Your task to perform on an android device: add a contact Image 0: 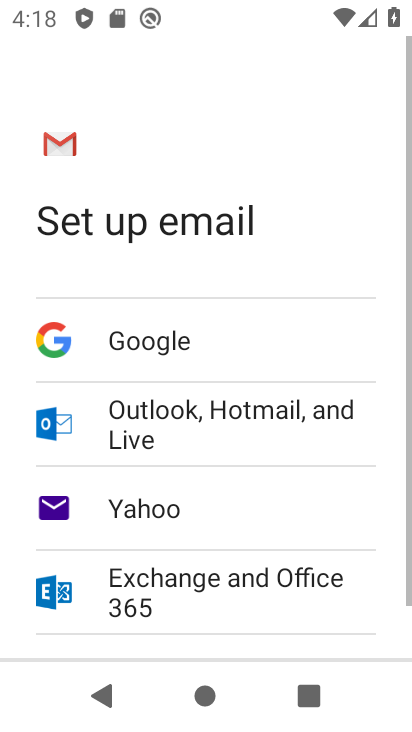
Step 0: press home button
Your task to perform on an android device: add a contact Image 1: 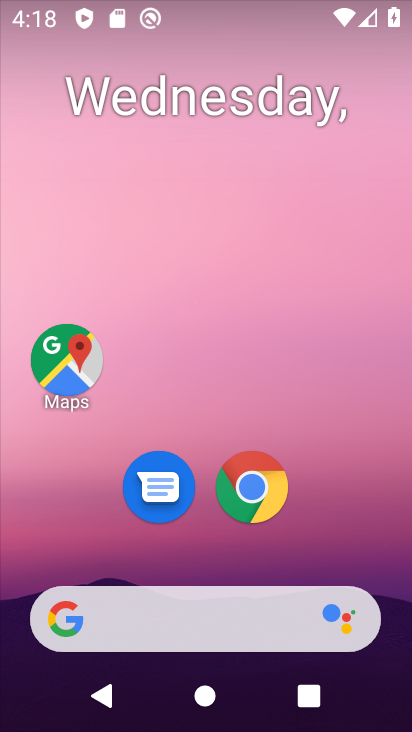
Step 1: drag from (198, 554) to (240, 69)
Your task to perform on an android device: add a contact Image 2: 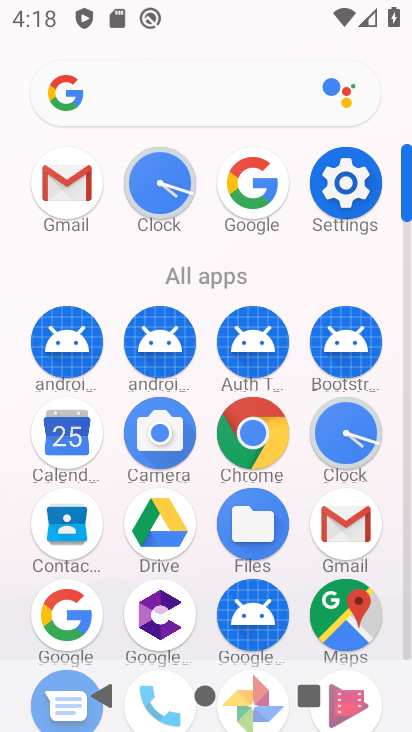
Step 2: click (61, 522)
Your task to perform on an android device: add a contact Image 3: 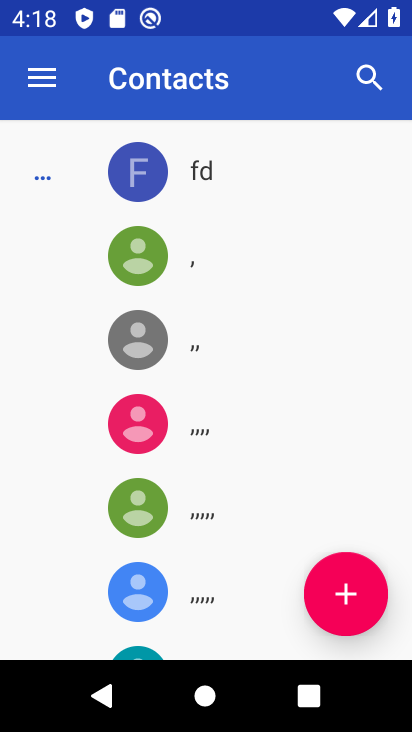
Step 3: drag from (244, 573) to (252, 198)
Your task to perform on an android device: add a contact Image 4: 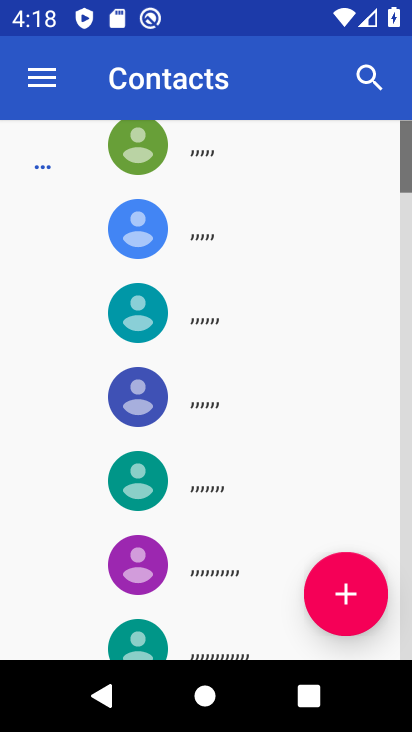
Step 4: click (359, 595)
Your task to perform on an android device: add a contact Image 5: 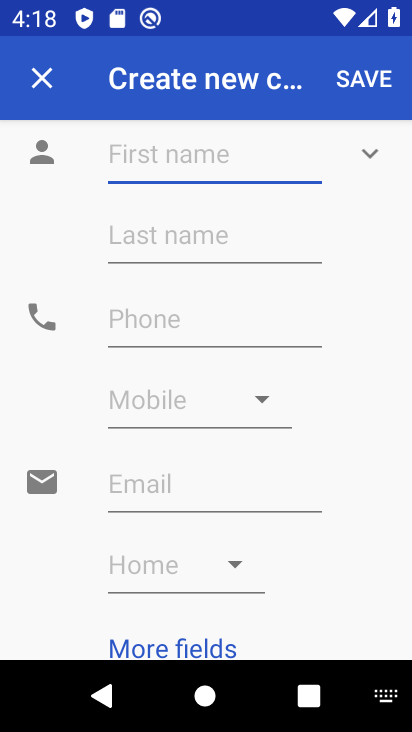
Step 5: type "uyftf"
Your task to perform on an android device: add a contact Image 6: 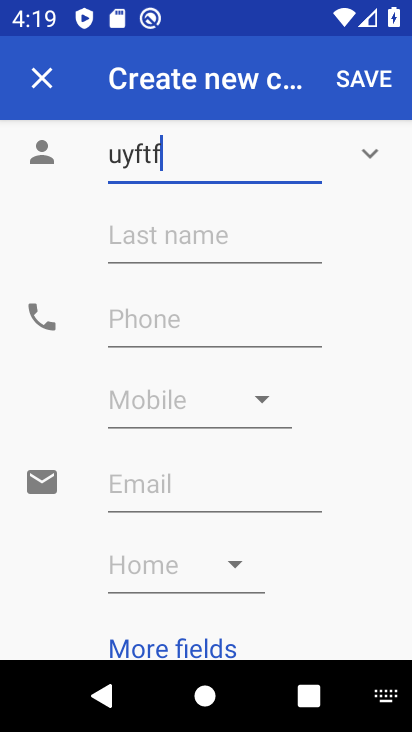
Step 6: click (363, 84)
Your task to perform on an android device: add a contact Image 7: 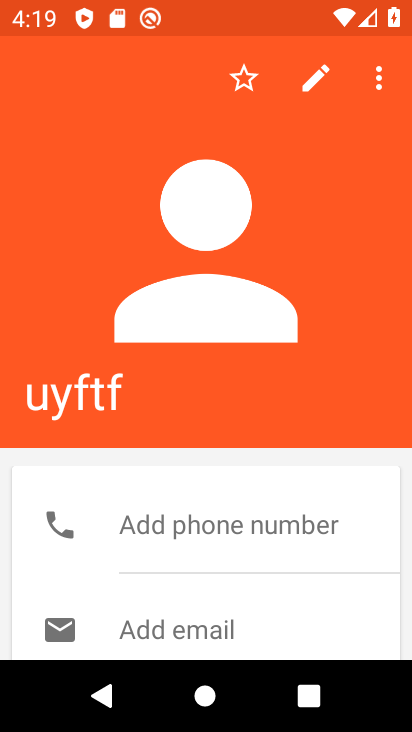
Step 7: task complete